Your task to perform on an android device: Turn off the flashlight Image 0: 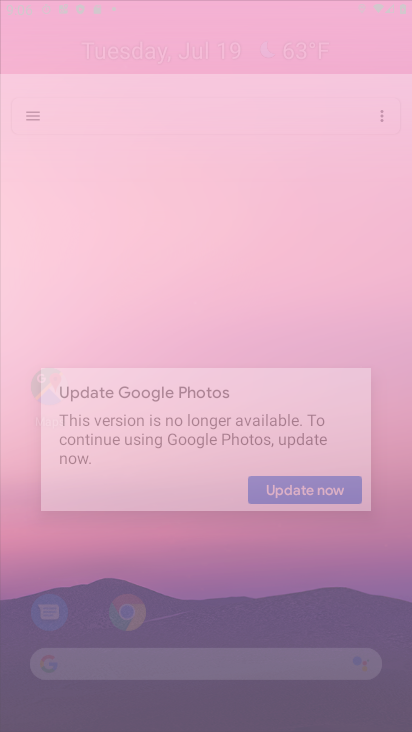
Step 0: drag from (281, 602) to (229, 253)
Your task to perform on an android device: Turn off the flashlight Image 1: 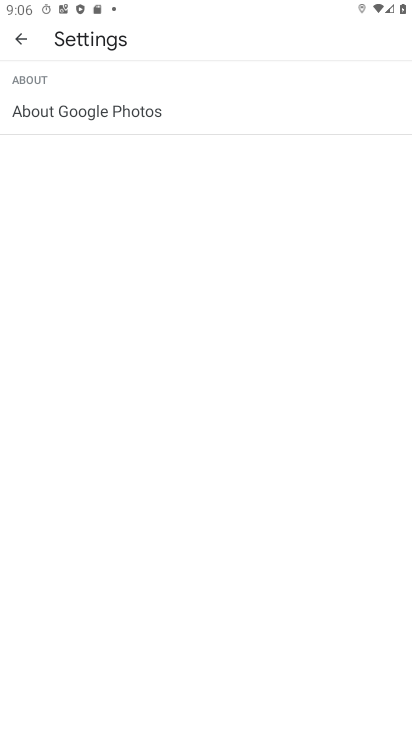
Step 1: task complete